Your task to perform on an android device: Open display settings Image 0: 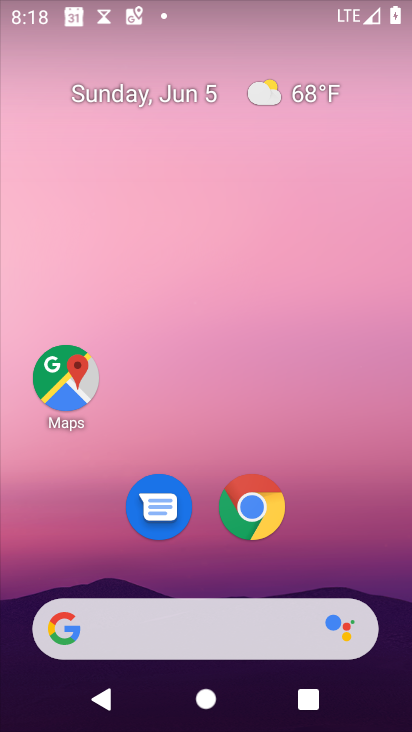
Step 0: drag from (209, 576) to (289, 10)
Your task to perform on an android device: Open display settings Image 1: 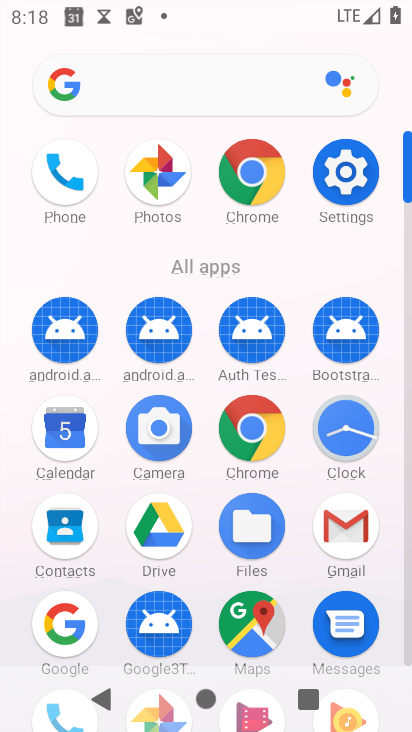
Step 1: click (351, 192)
Your task to perform on an android device: Open display settings Image 2: 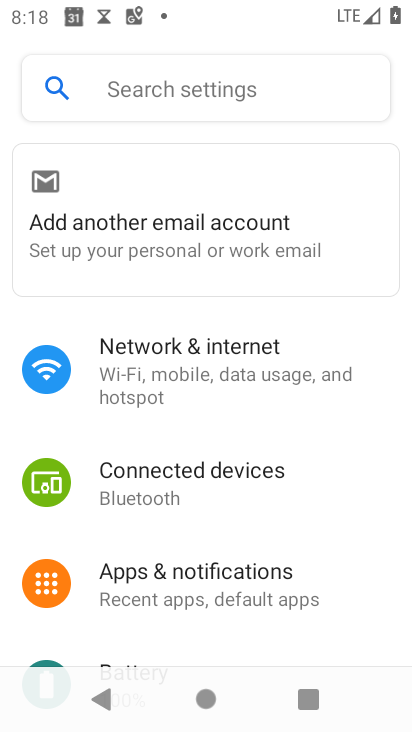
Step 2: drag from (131, 534) to (199, 244)
Your task to perform on an android device: Open display settings Image 3: 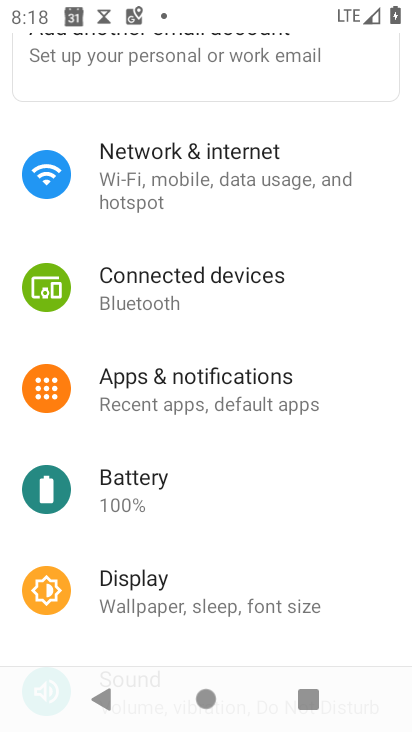
Step 3: click (189, 577)
Your task to perform on an android device: Open display settings Image 4: 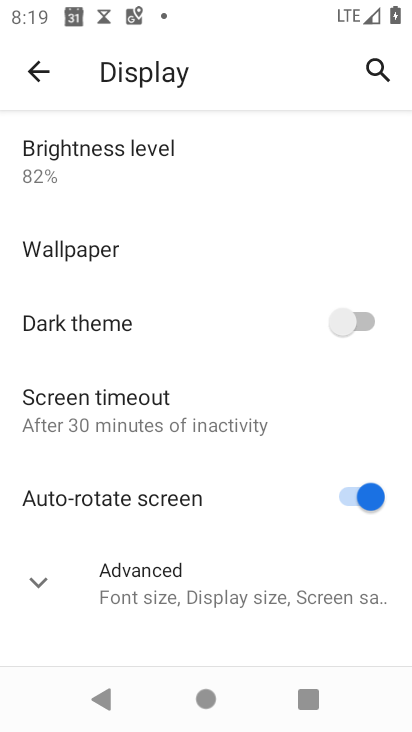
Step 4: task complete